Your task to perform on an android device: Open settings Image 0: 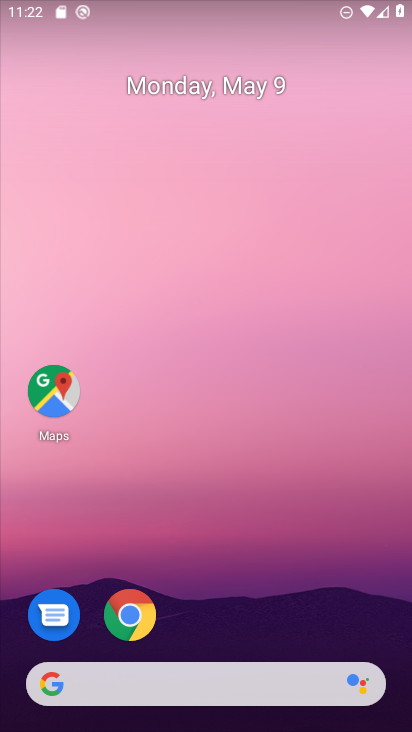
Step 0: drag from (315, 708) to (298, 218)
Your task to perform on an android device: Open settings Image 1: 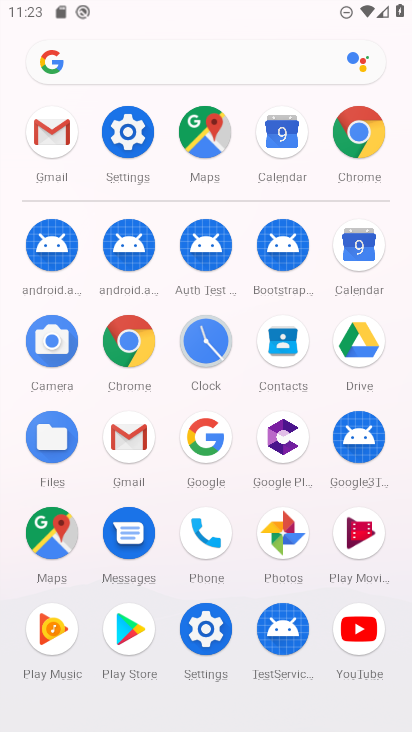
Step 1: click (138, 131)
Your task to perform on an android device: Open settings Image 2: 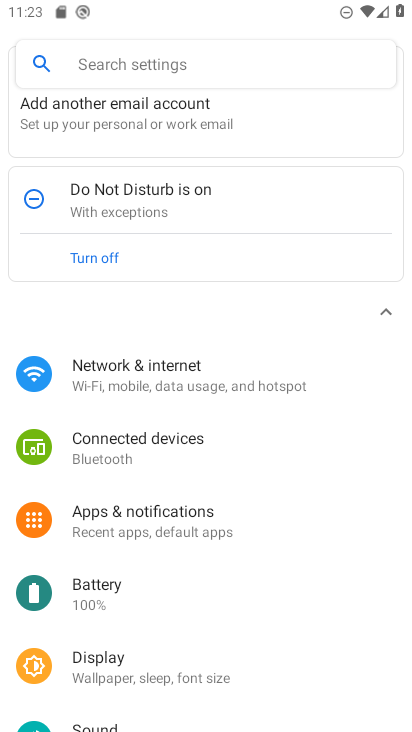
Step 2: task complete